Your task to perform on an android device: turn notification dots on Image 0: 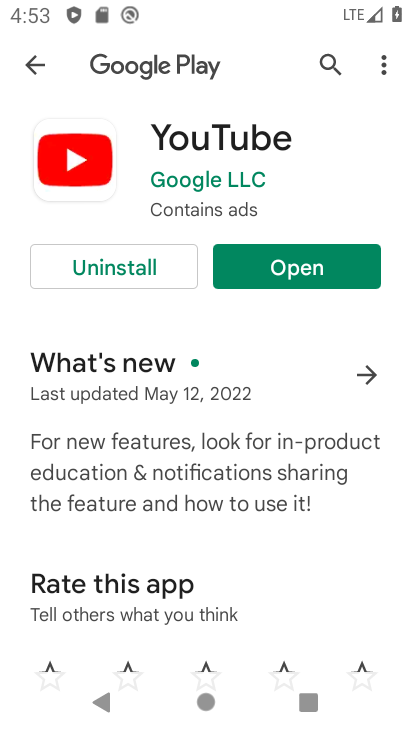
Step 0: press home button
Your task to perform on an android device: turn notification dots on Image 1: 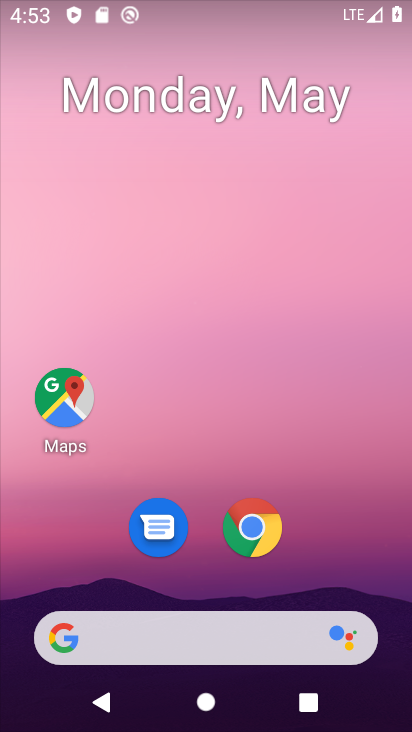
Step 1: click (324, 31)
Your task to perform on an android device: turn notification dots on Image 2: 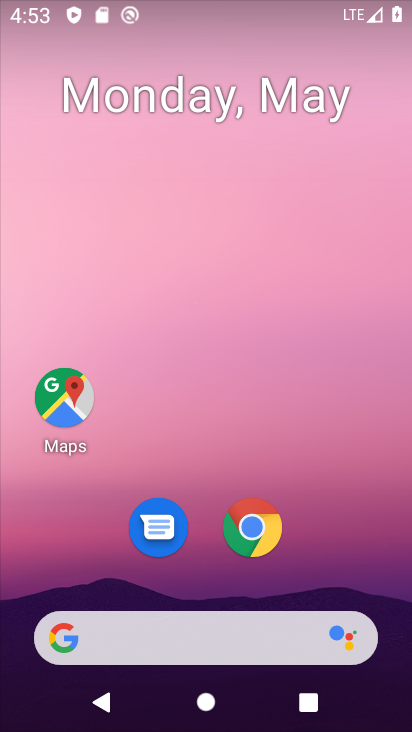
Step 2: drag from (403, 696) to (354, 202)
Your task to perform on an android device: turn notification dots on Image 3: 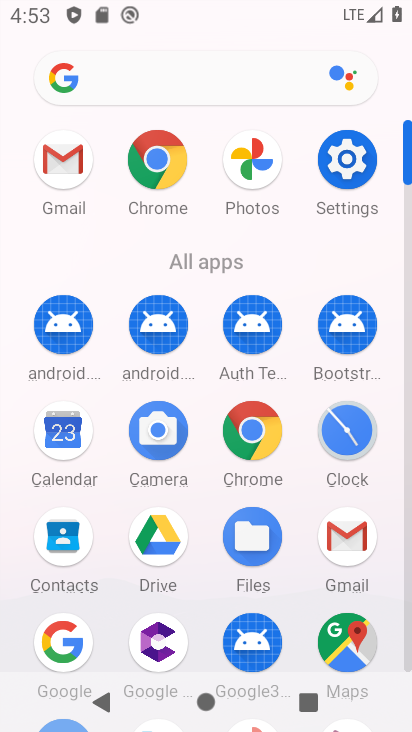
Step 3: click (343, 174)
Your task to perform on an android device: turn notification dots on Image 4: 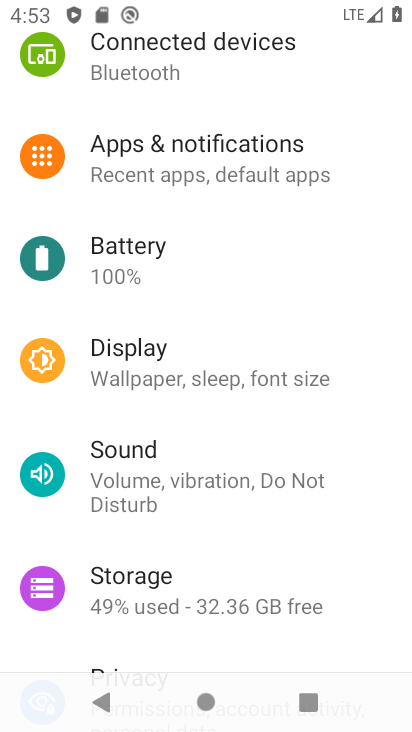
Step 4: click (210, 160)
Your task to perform on an android device: turn notification dots on Image 5: 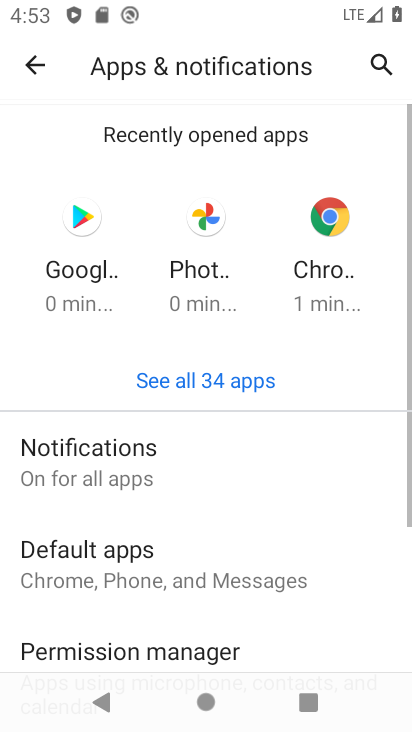
Step 5: click (87, 463)
Your task to perform on an android device: turn notification dots on Image 6: 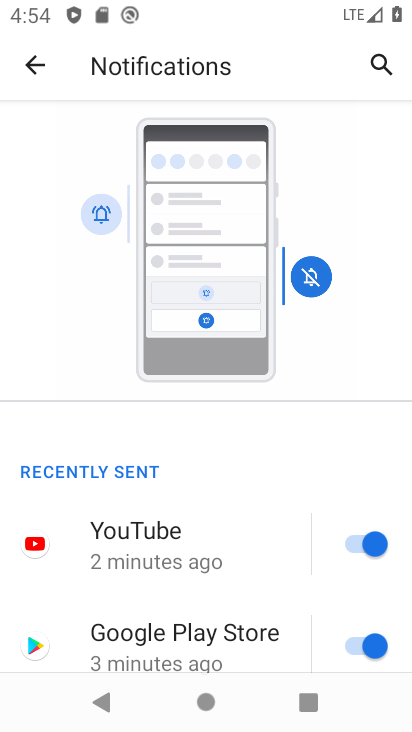
Step 6: drag from (293, 647) to (253, 247)
Your task to perform on an android device: turn notification dots on Image 7: 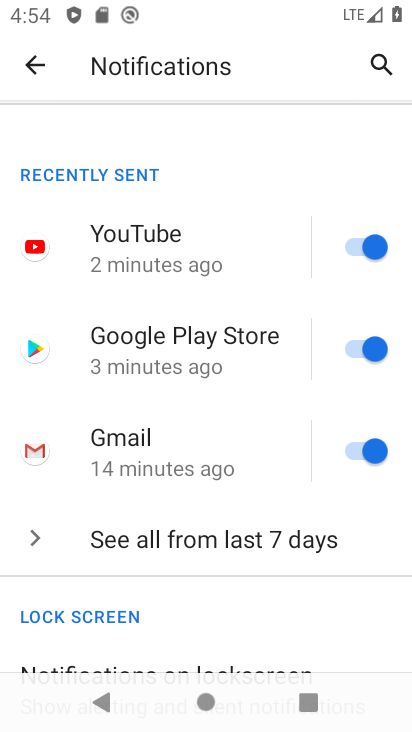
Step 7: drag from (265, 636) to (225, 277)
Your task to perform on an android device: turn notification dots on Image 8: 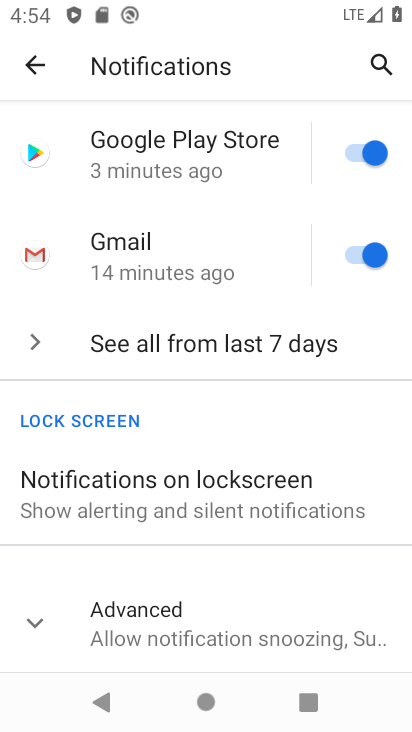
Step 8: click (14, 624)
Your task to perform on an android device: turn notification dots on Image 9: 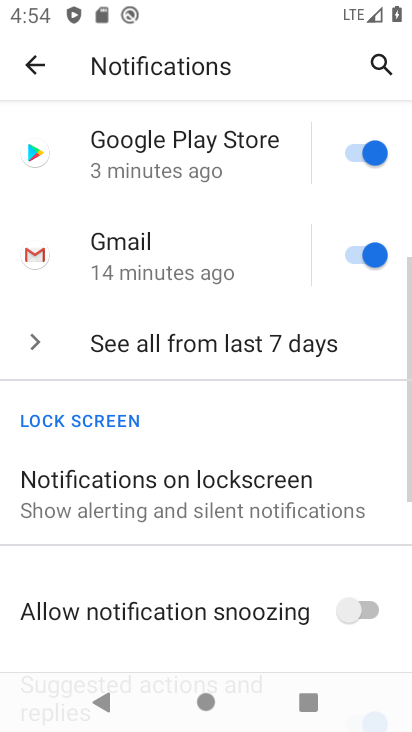
Step 9: task complete